Your task to perform on an android device: Is it going to rain tomorrow? Image 0: 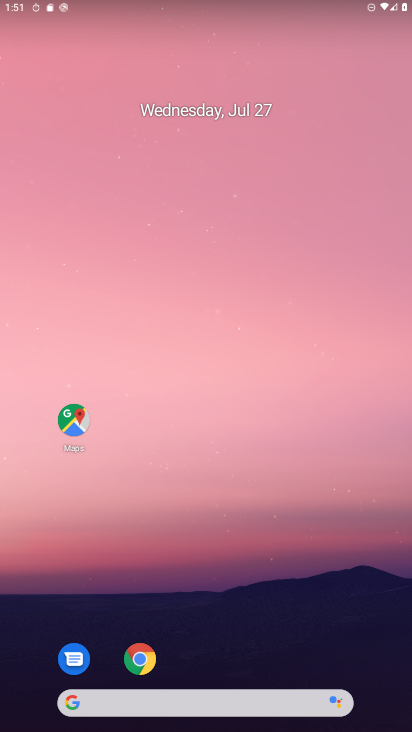
Step 0: drag from (317, 626) to (293, 36)
Your task to perform on an android device: Is it going to rain tomorrow? Image 1: 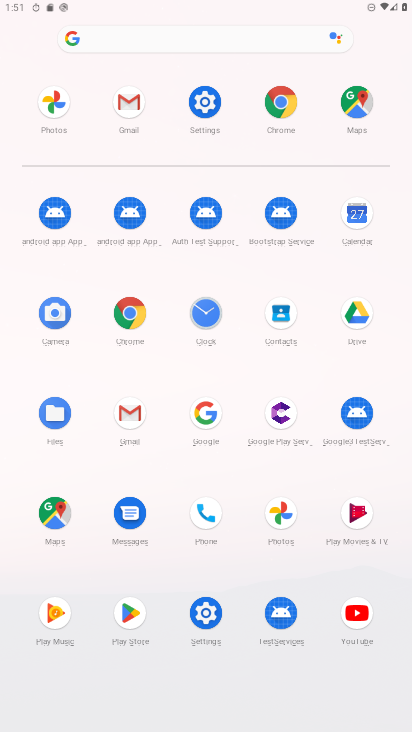
Step 1: click (280, 102)
Your task to perform on an android device: Is it going to rain tomorrow? Image 2: 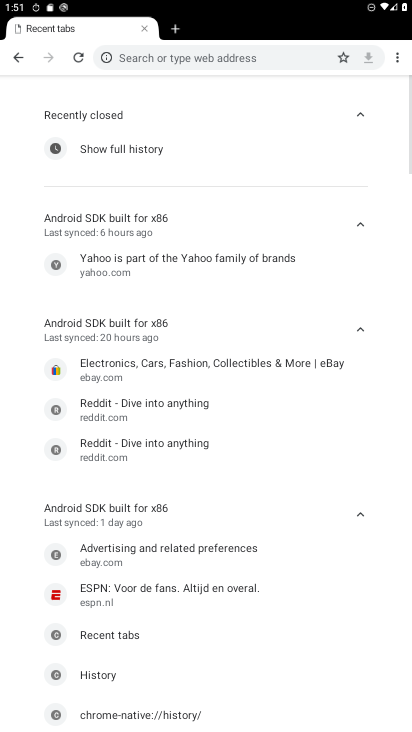
Step 2: click (186, 62)
Your task to perform on an android device: Is it going to rain tomorrow? Image 3: 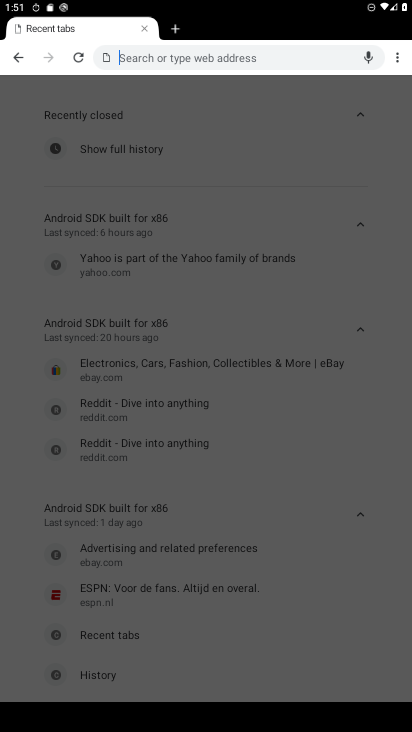
Step 3: type "weather"
Your task to perform on an android device: Is it going to rain tomorrow? Image 4: 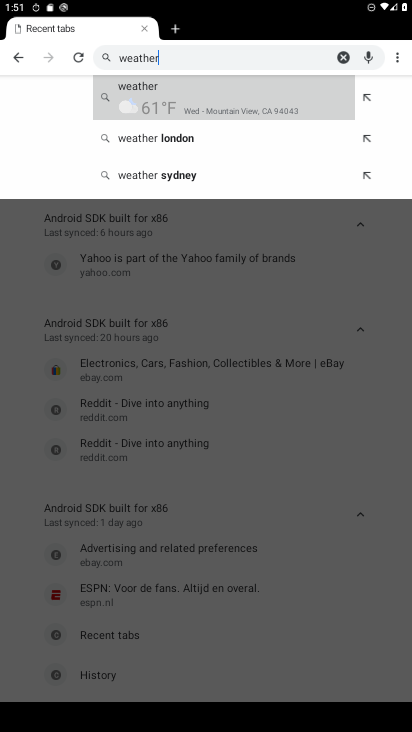
Step 4: click (141, 101)
Your task to perform on an android device: Is it going to rain tomorrow? Image 5: 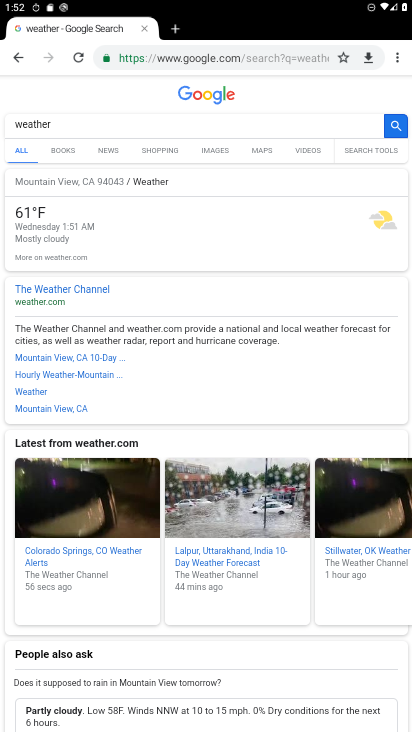
Step 5: click (213, 123)
Your task to perform on an android device: Is it going to rain tomorrow? Image 6: 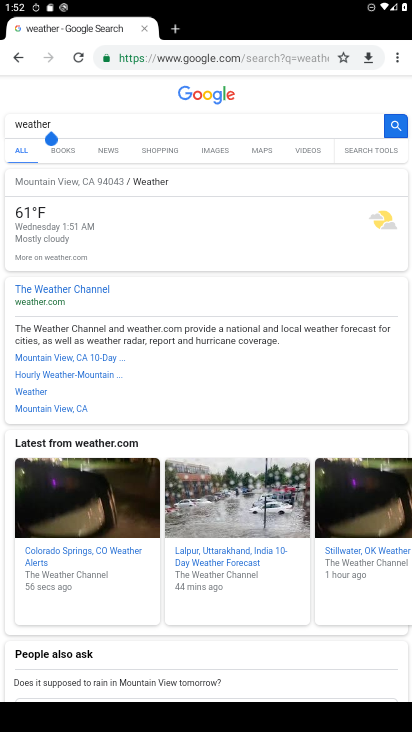
Step 6: type " rain tomoorow "
Your task to perform on an android device: Is it going to rain tomorrow? Image 7: 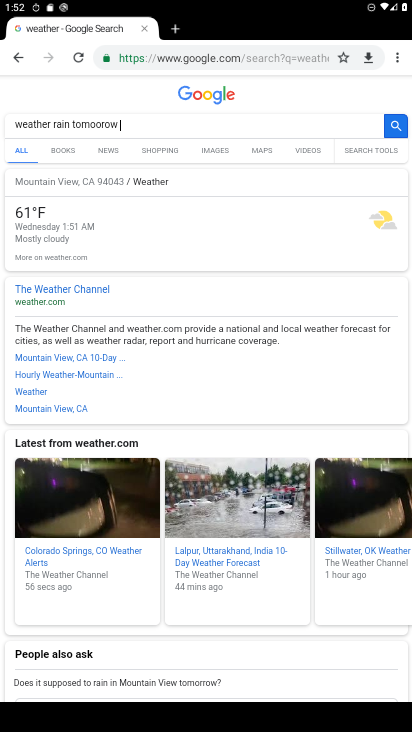
Step 7: click (391, 126)
Your task to perform on an android device: Is it going to rain tomorrow? Image 8: 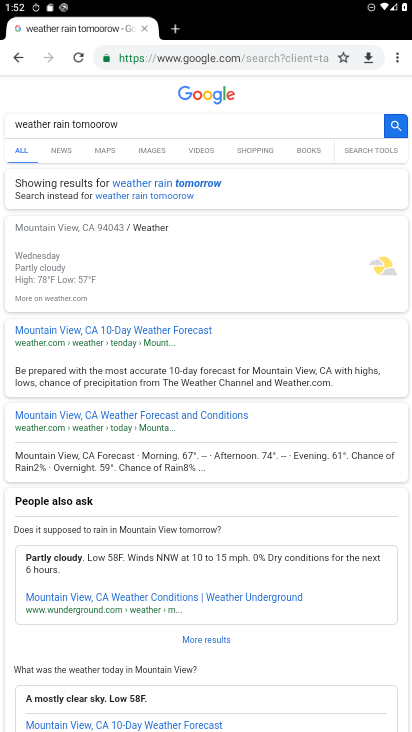
Step 8: click (207, 180)
Your task to perform on an android device: Is it going to rain tomorrow? Image 9: 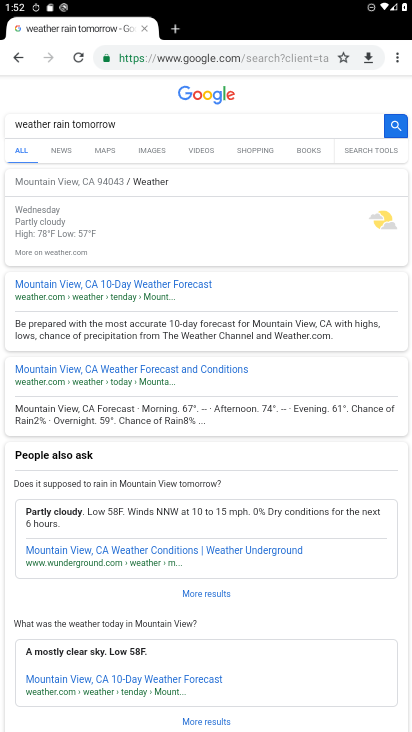
Step 9: task complete